Your task to perform on an android device: clear history in the chrome app Image 0: 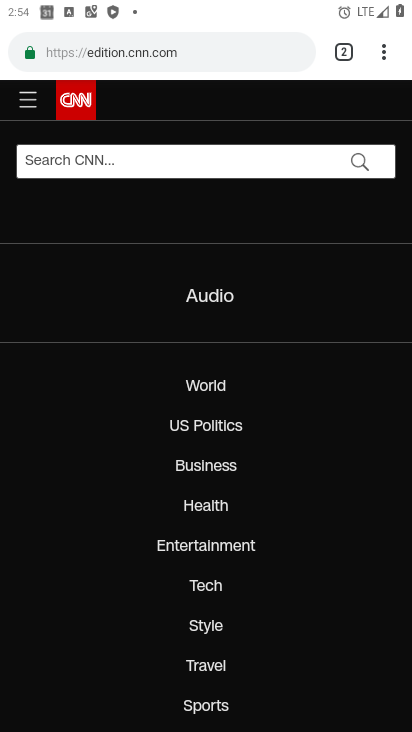
Step 0: click (383, 55)
Your task to perform on an android device: clear history in the chrome app Image 1: 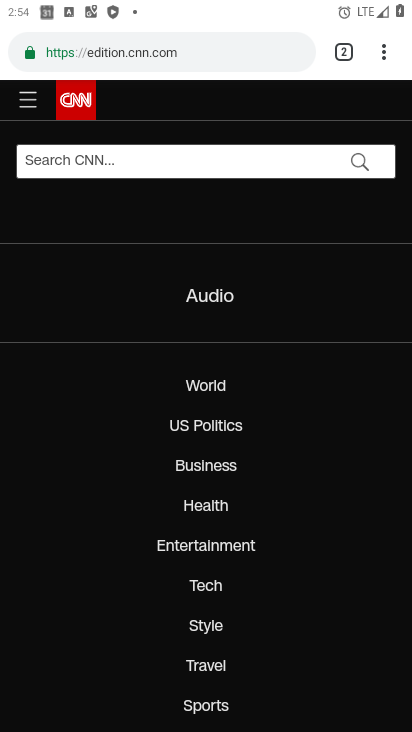
Step 1: click (381, 60)
Your task to perform on an android device: clear history in the chrome app Image 2: 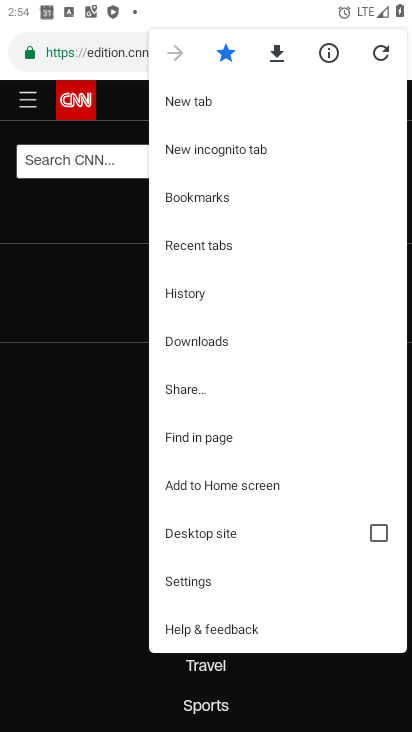
Step 2: click (188, 296)
Your task to perform on an android device: clear history in the chrome app Image 3: 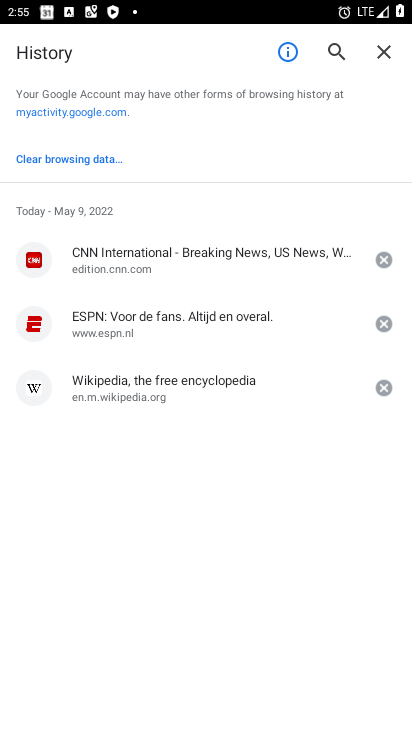
Step 3: click (57, 155)
Your task to perform on an android device: clear history in the chrome app Image 4: 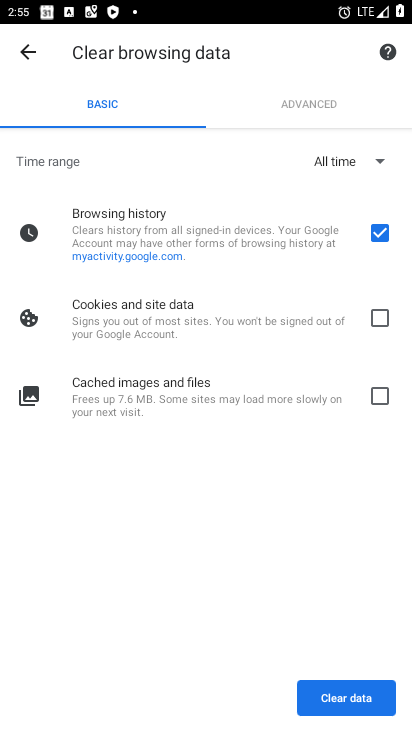
Step 4: click (354, 697)
Your task to perform on an android device: clear history in the chrome app Image 5: 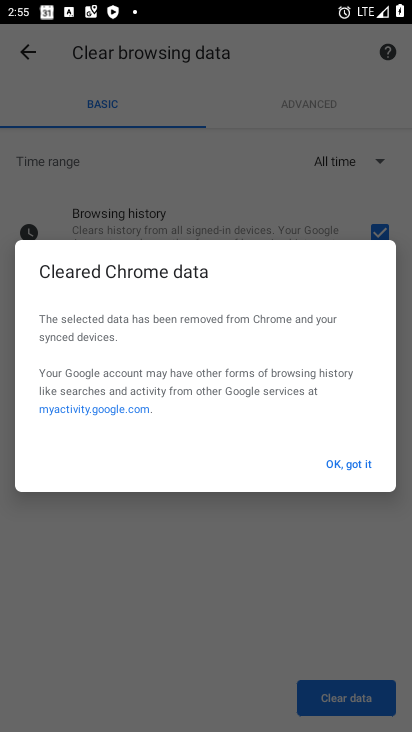
Step 5: click (355, 463)
Your task to perform on an android device: clear history in the chrome app Image 6: 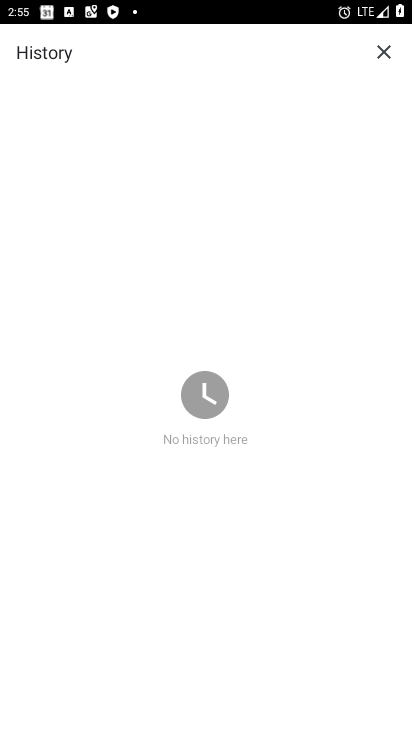
Step 6: task complete